Your task to perform on an android device: turn vacation reply on in the gmail app Image 0: 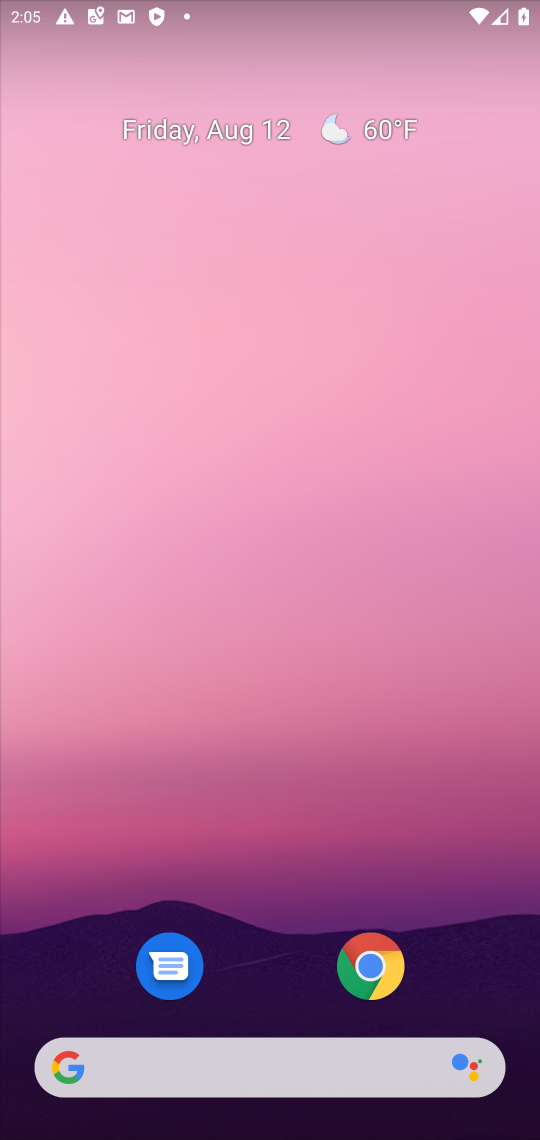
Step 0: drag from (295, 831) to (288, 246)
Your task to perform on an android device: turn vacation reply on in the gmail app Image 1: 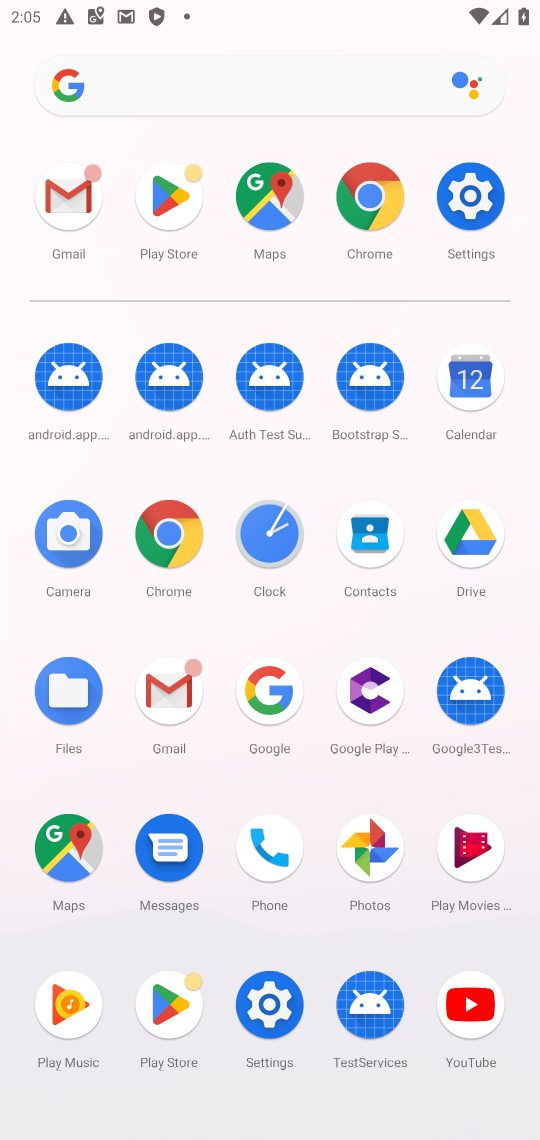
Step 1: click (164, 690)
Your task to perform on an android device: turn vacation reply on in the gmail app Image 2: 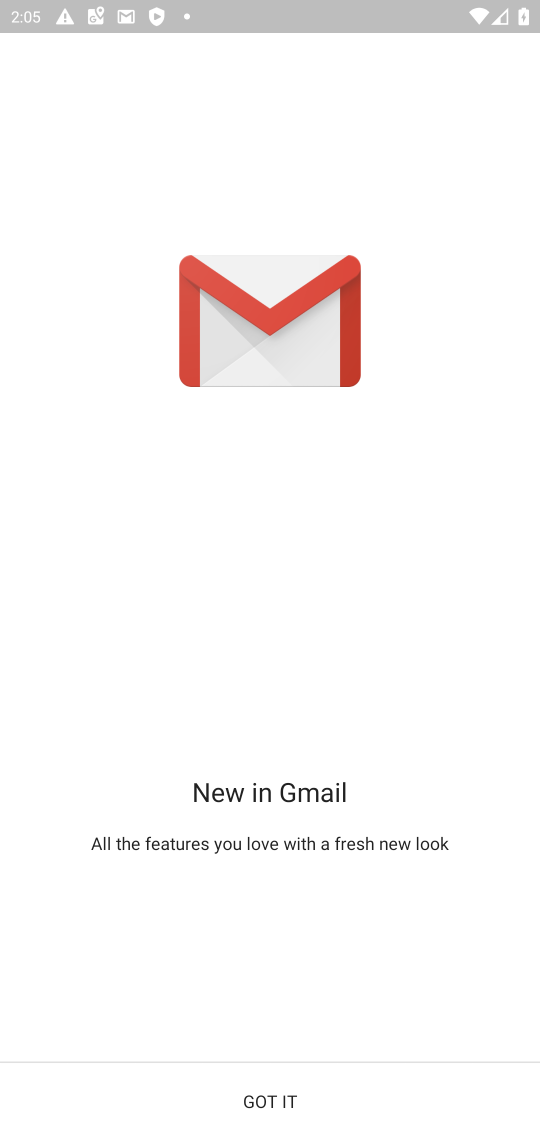
Step 2: click (339, 1082)
Your task to perform on an android device: turn vacation reply on in the gmail app Image 3: 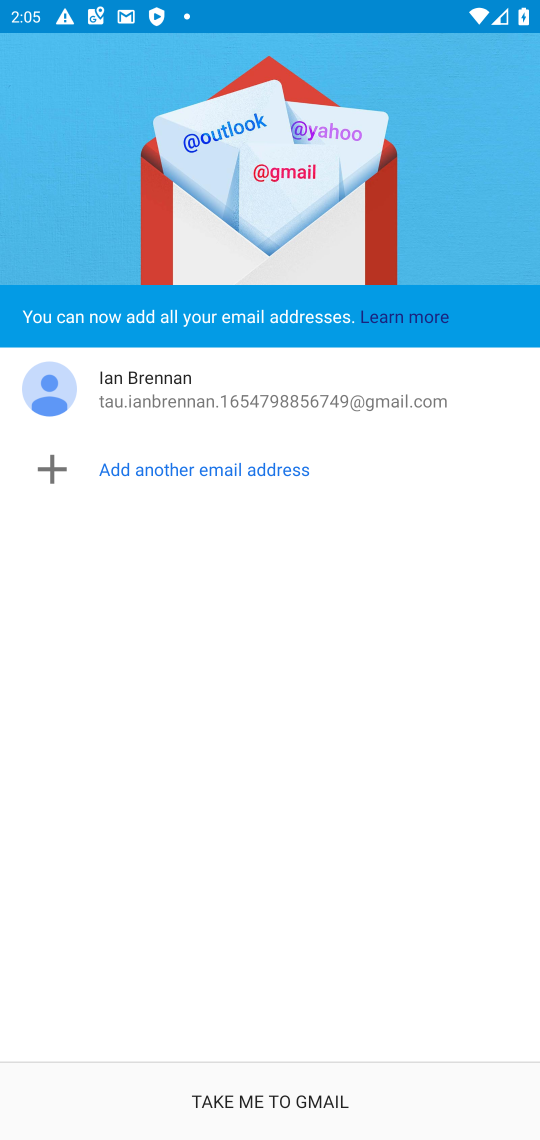
Step 3: click (322, 1123)
Your task to perform on an android device: turn vacation reply on in the gmail app Image 4: 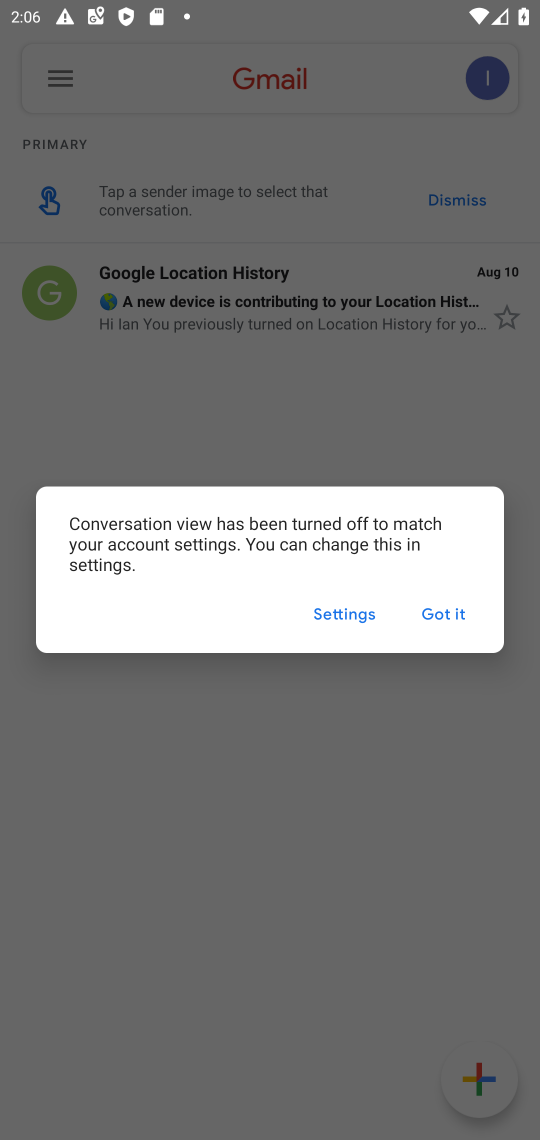
Step 4: click (440, 604)
Your task to perform on an android device: turn vacation reply on in the gmail app Image 5: 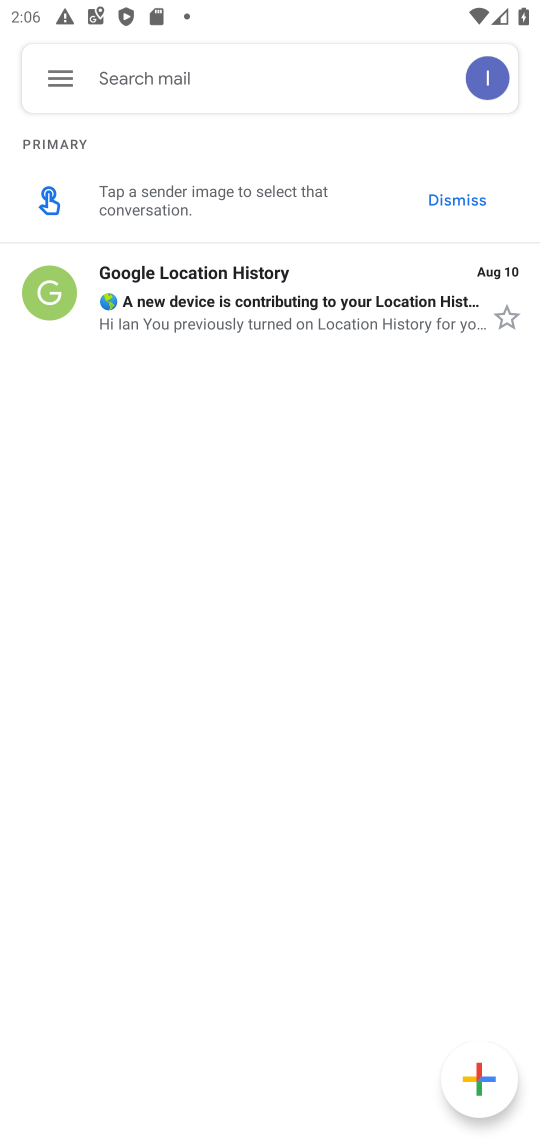
Step 5: click (49, 86)
Your task to perform on an android device: turn vacation reply on in the gmail app Image 6: 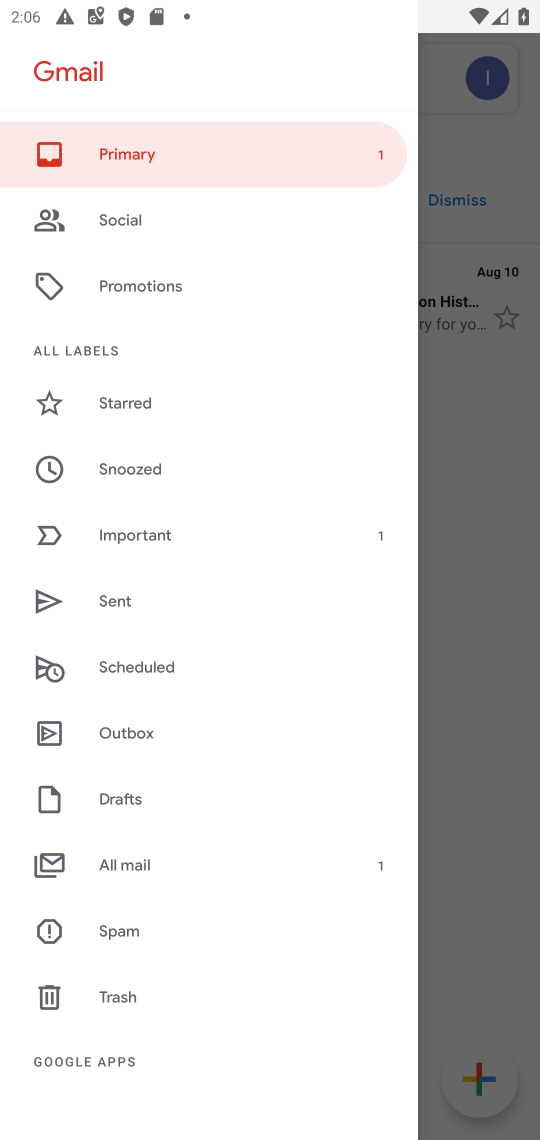
Step 6: drag from (212, 1083) to (190, 446)
Your task to perform on an android device: turn vacation reply on in the gmail app Image 7: 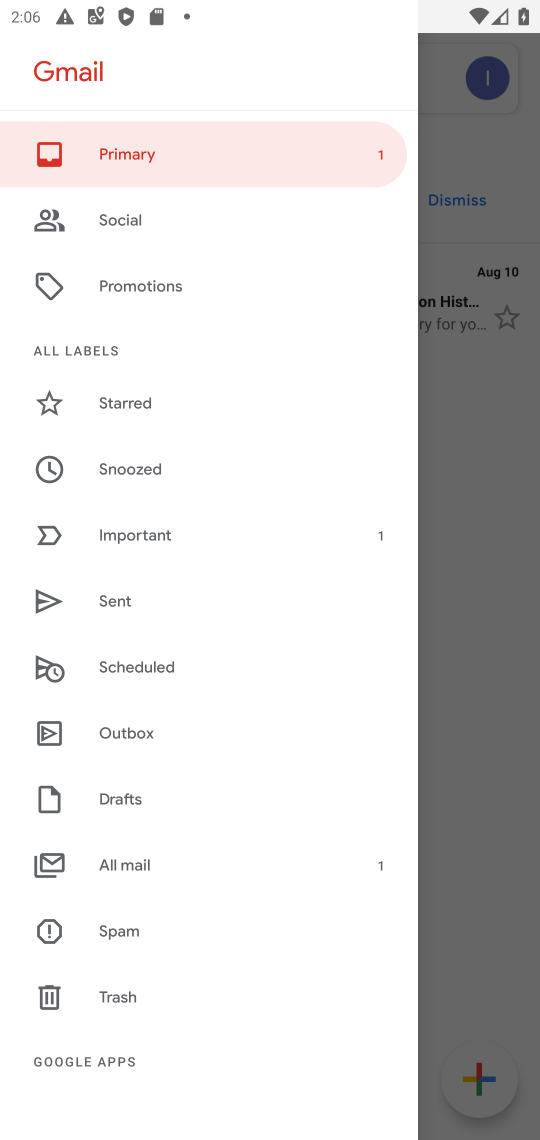
Step 7: drag from (132, 1012) to (198, 365)
Your task to perform on an android device: turn vacation reply on in the gmail app Image 8: 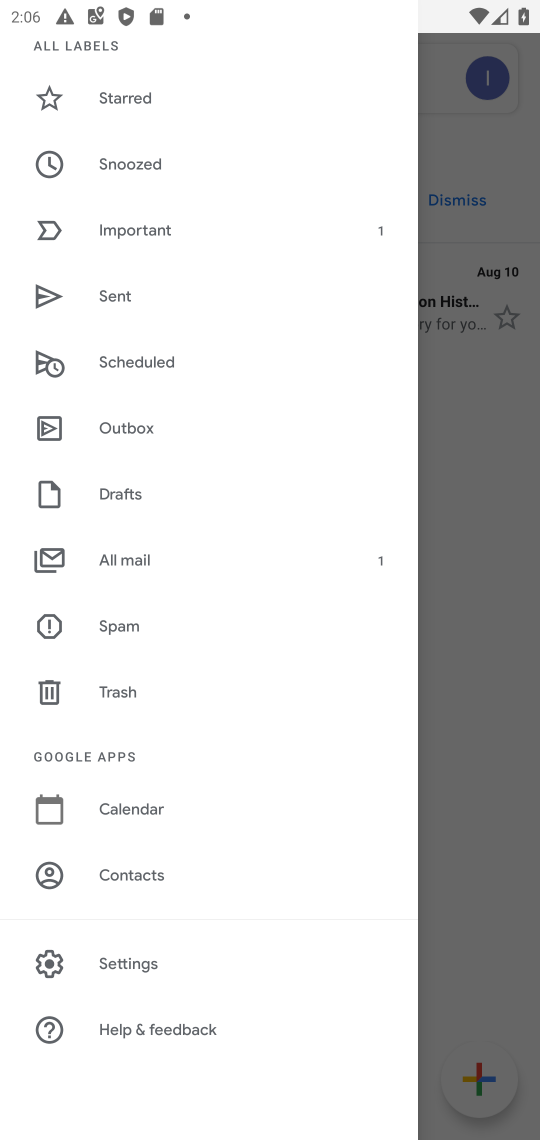
Step 8: click (148, 976)
Your task to perform on an android device: turn vacation reply on in the gmail app Image 9: 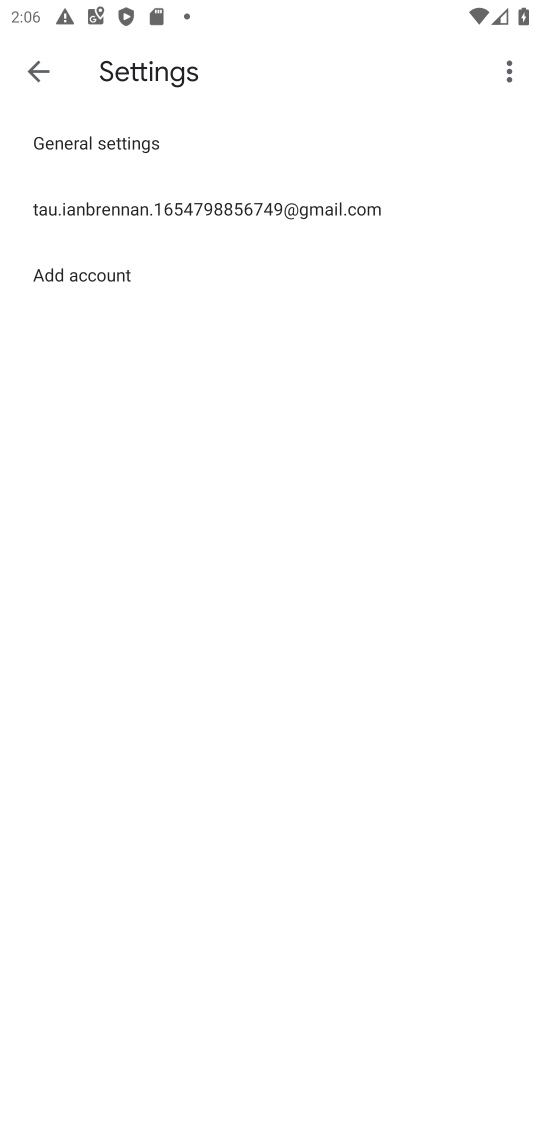
Step 9: click (109, 199)
Your task to perform on an android device: turn vacation reply on in the gmail app Image 10: 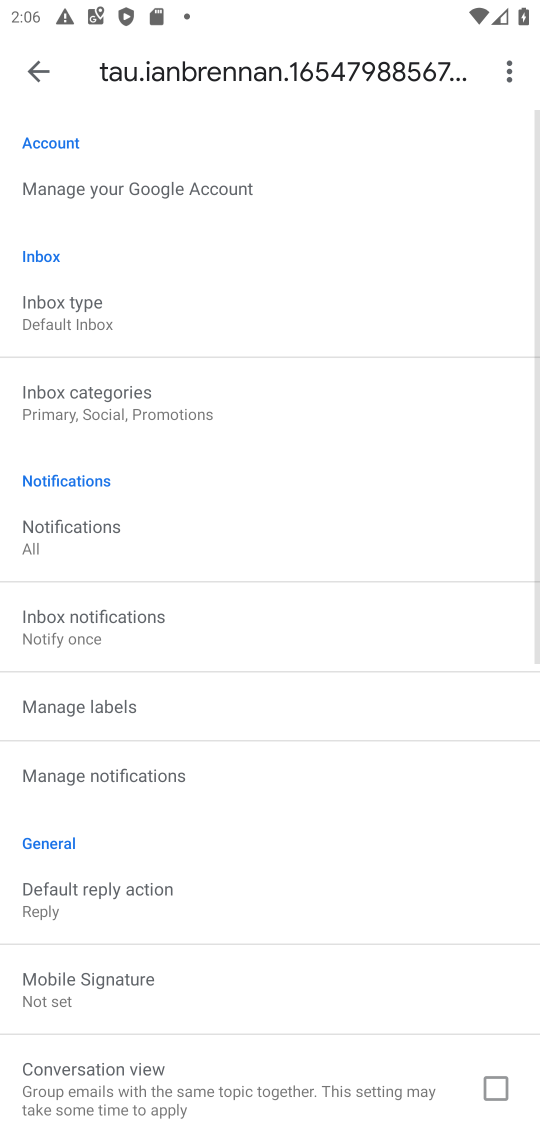
Step 10: drag from (270, 985) to (291, 217)
Your task to perform on an android device: turn vacation reply on in the gmail app Image 11: 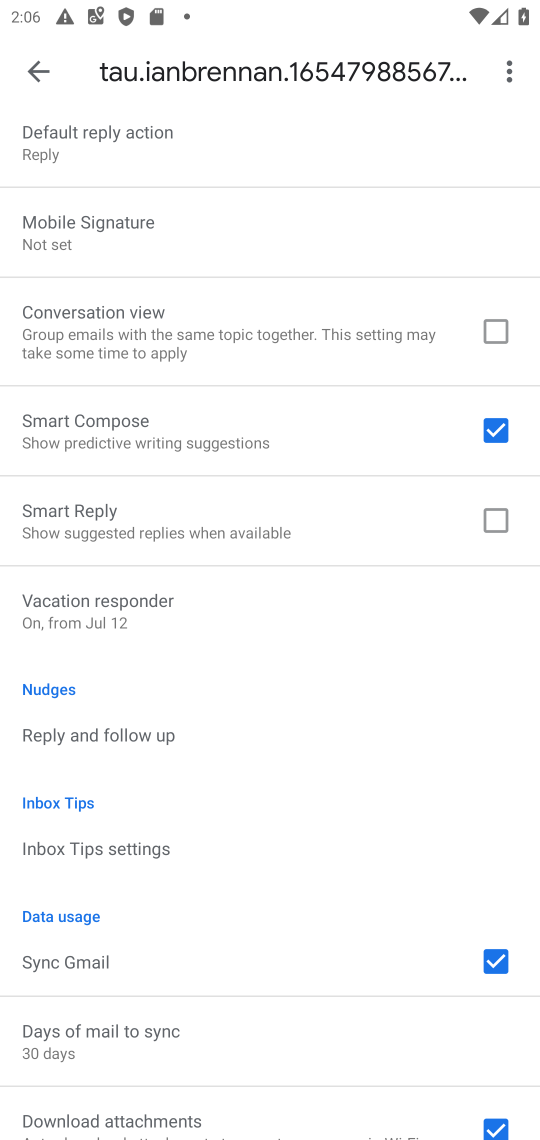
Step 11: click (229, 602)
Your task to perform on an android device: turn vacation reply on in the gmail app Image 12: 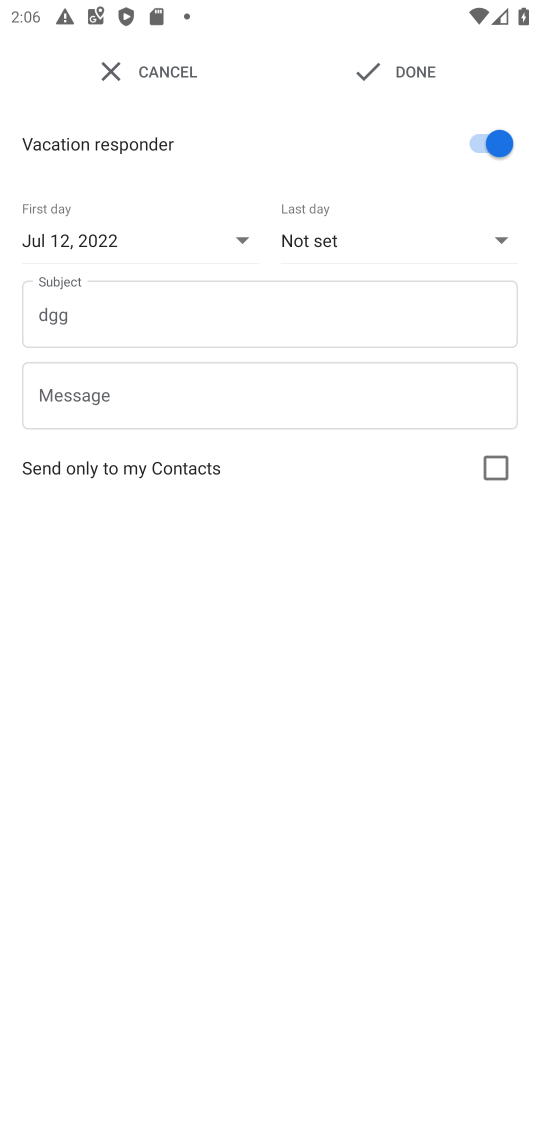
Step 12: task complete